Your task to perform on an android device: turn on bluetooth scan Image 0: 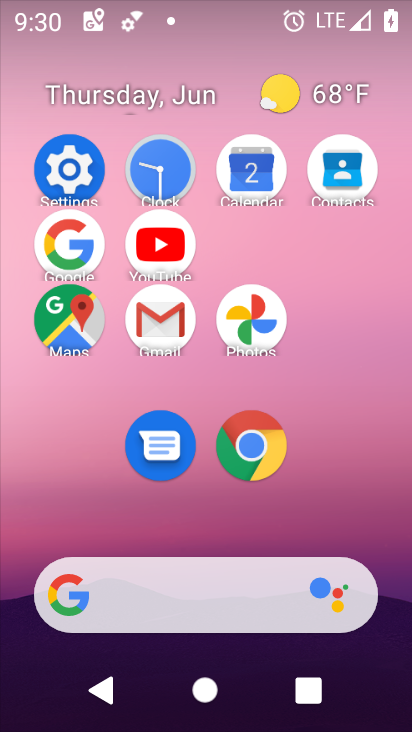
Step 0: click (55, 173)
Your task to perform on an android device: turn on bluetooth scan Image 1: 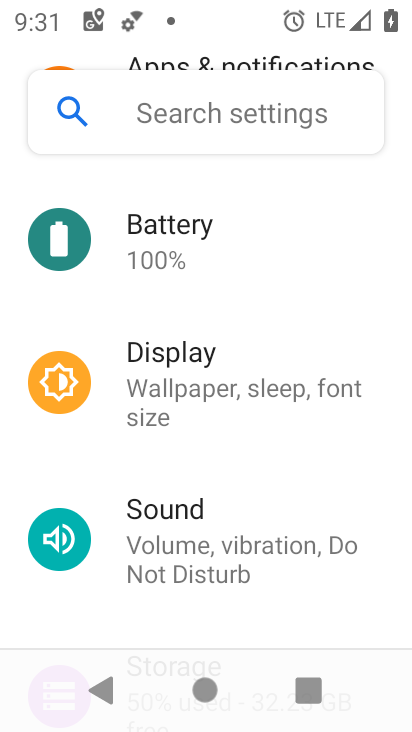
Step 1: drag from (222, 620) to (263, 219)
Your task to perform on an android device: turn on bluetooth scan Image 2: 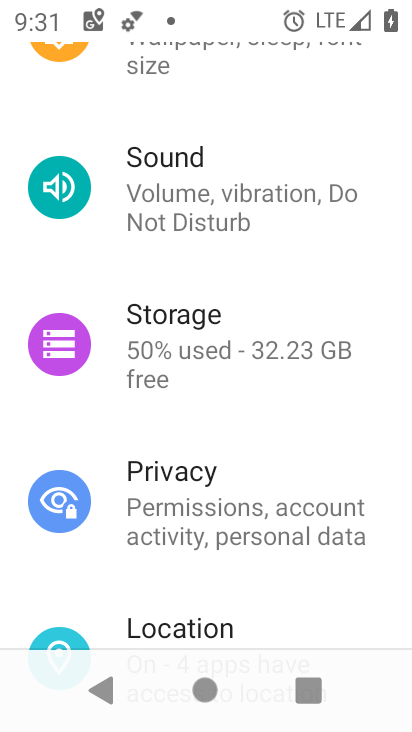
Step 2: drag from (275, 543) to (321, 134)
Your task to perform on an android device: turn on bluetooth scan Image 3: 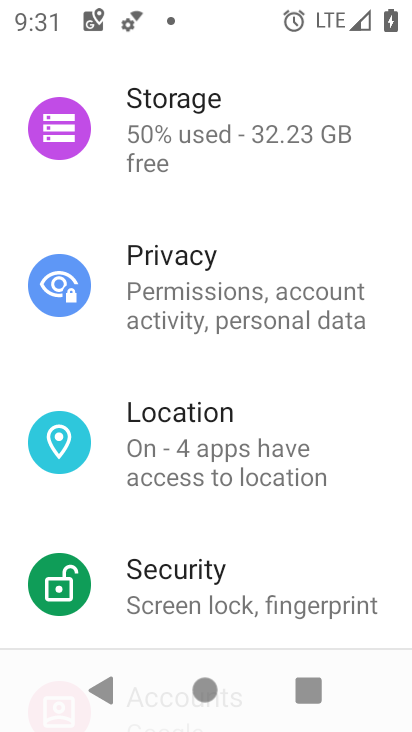
Step 3: click (274, 461)
Your task to perform on an android device: turn on bluetooth scan Image 4: 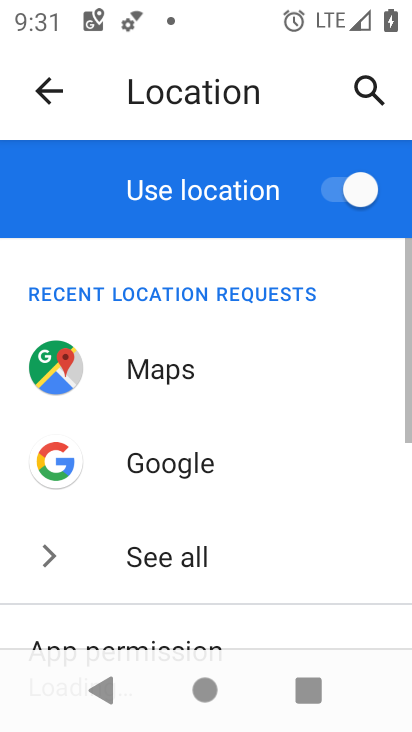
Step 4: drag from (270, 551) to (343, 164)
Your task to perform on an android device: turn on bluetooth scan Image 5: 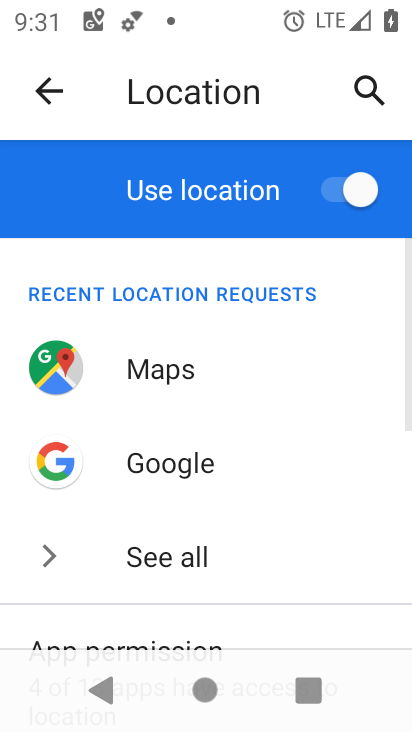
Step 5: drag from (220, 582) to (217, 127)
Your task to perform on an android device: turn on bluetooth scan Image 6: 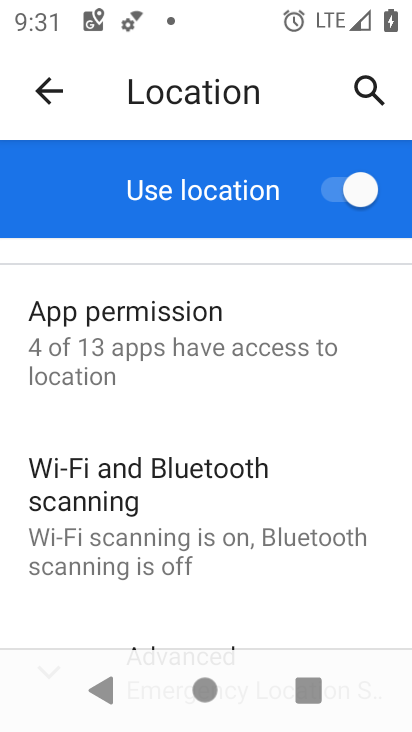
Step 6: click (267, 492)
Your task to perform on an android device: turn on bluetooth scan Image 7: 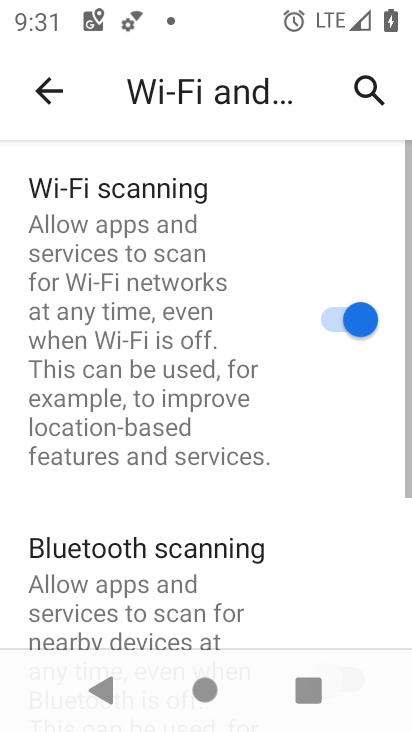
Step 7: drag from (306, 523) to (335, 134)
Your task to perform on an android device: turn on bluetooth scan Image 8: 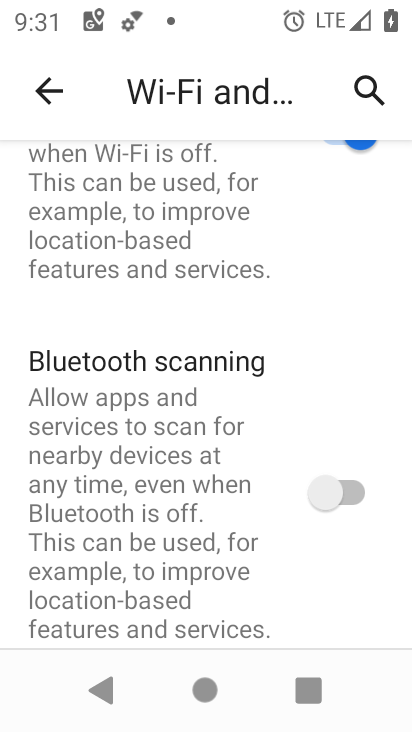
Step 8: click (339, 507)
Your task to perform on an android device: turn on bluetooth scan Image 9: 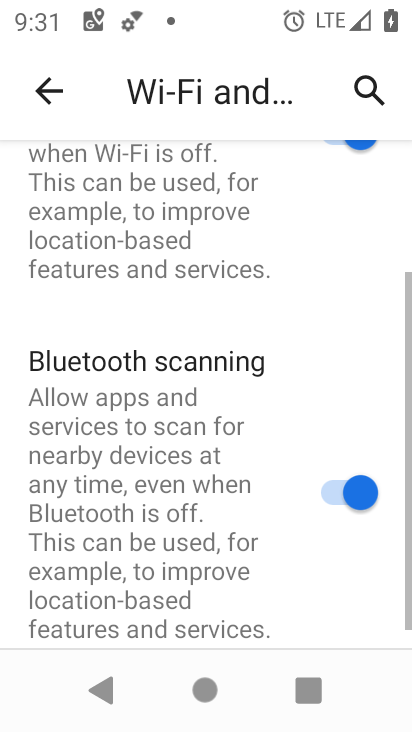
Step 9: task complete